Your task to perform on an android device: change text size in settings app Image 0: 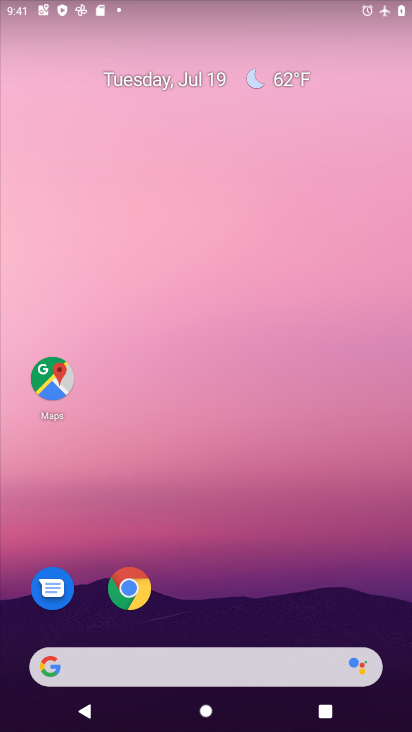
Step 0: drag from (311, 561) to (294, 44)
Your task to perform on an android device: change text size in settings app Image 1: 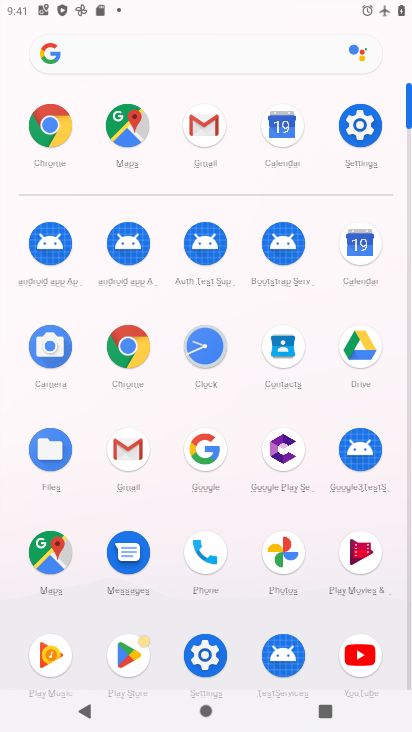
Step 1: click (372, 117)
Your task to perform on an android device: change text size in settings app Image 2: 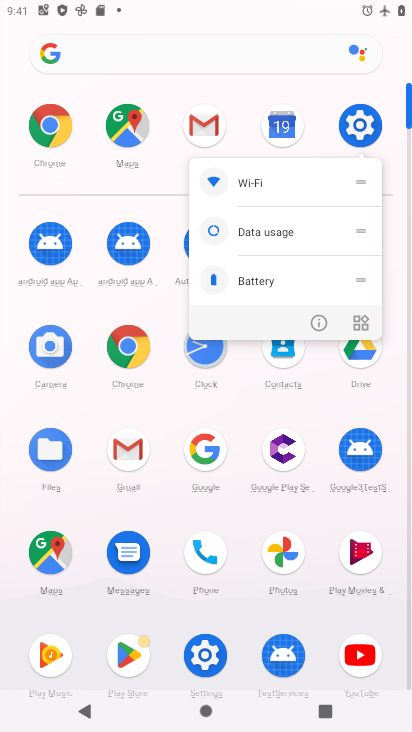
Step 2: click (370, 118)
Your task to perform on an android device: change text size in settings app Image 3: 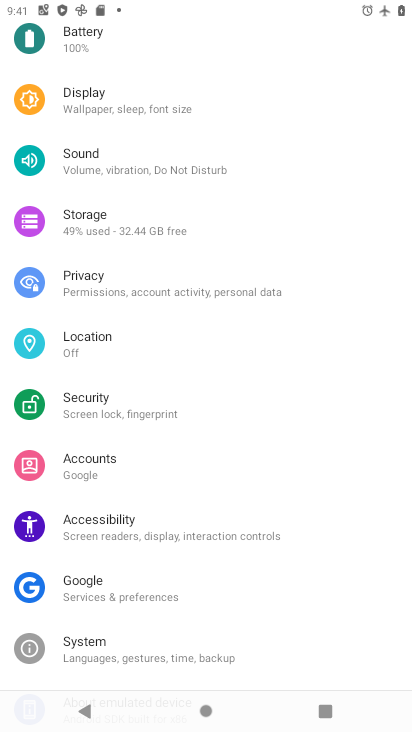
Step 3: click (75, 104)
Your task to perform on an android device: change text size in settings app Image 4: 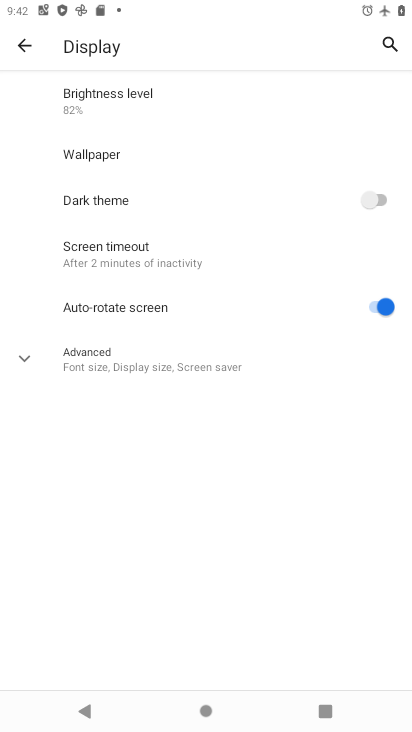
Step 4: click (171, 359)
Your task to perform on an android device: change text size in settings app Image 5: 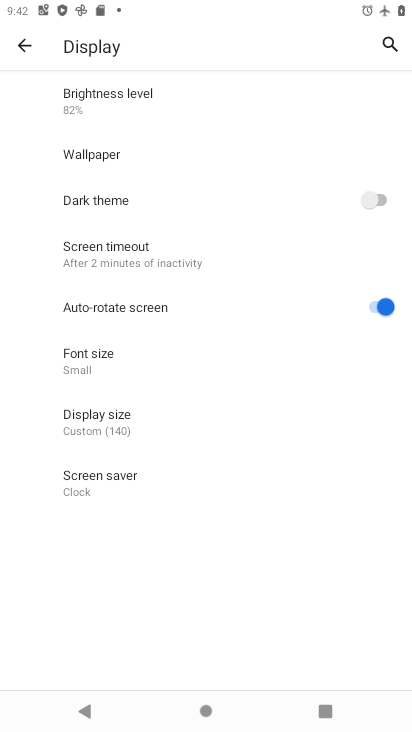
Step 5: click (102, 345)
Your task to perform on an android device: change text size in settings app Image 6: 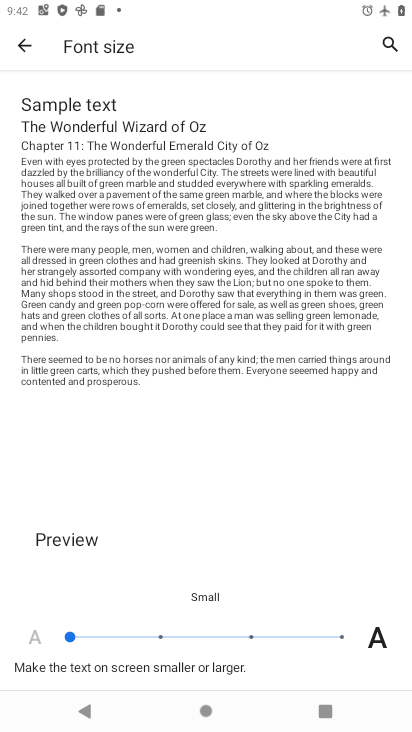
Step 6: click (330, 635)
Your task to perform on an android device: change text size in settings app Image 7: 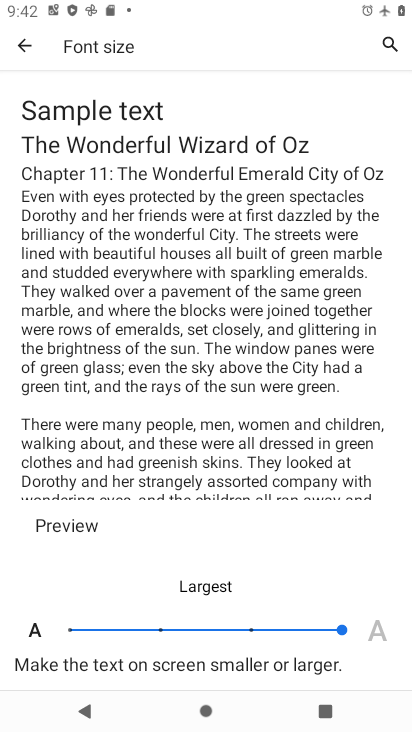
Step 7: task complete